Your task to perform on an android device: Search for good Italian restaurants Image 0: 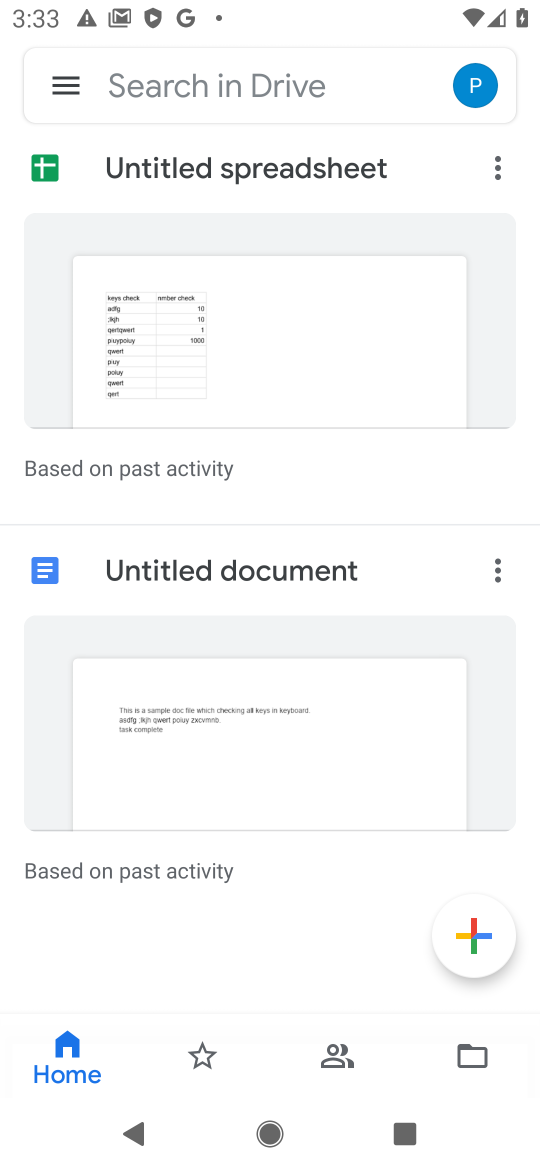
Step 0: press home button
Your task to perform on an android device: Search for good Italian restaurants Image 1: 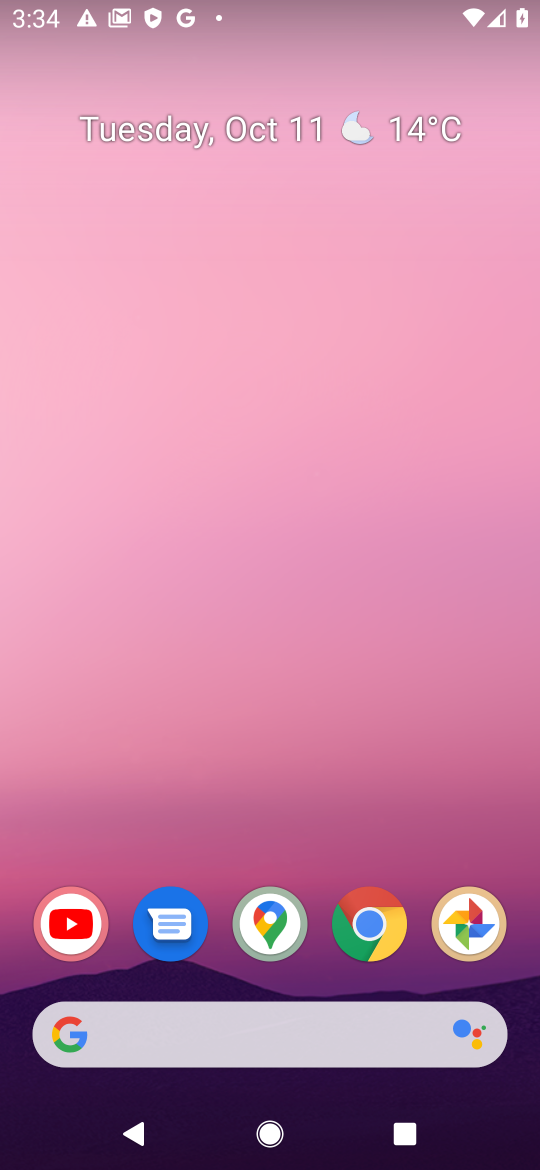
Step 1: click (396, 930)
Your task to perform on an android device: Search for good Italian restaurants Image 2: 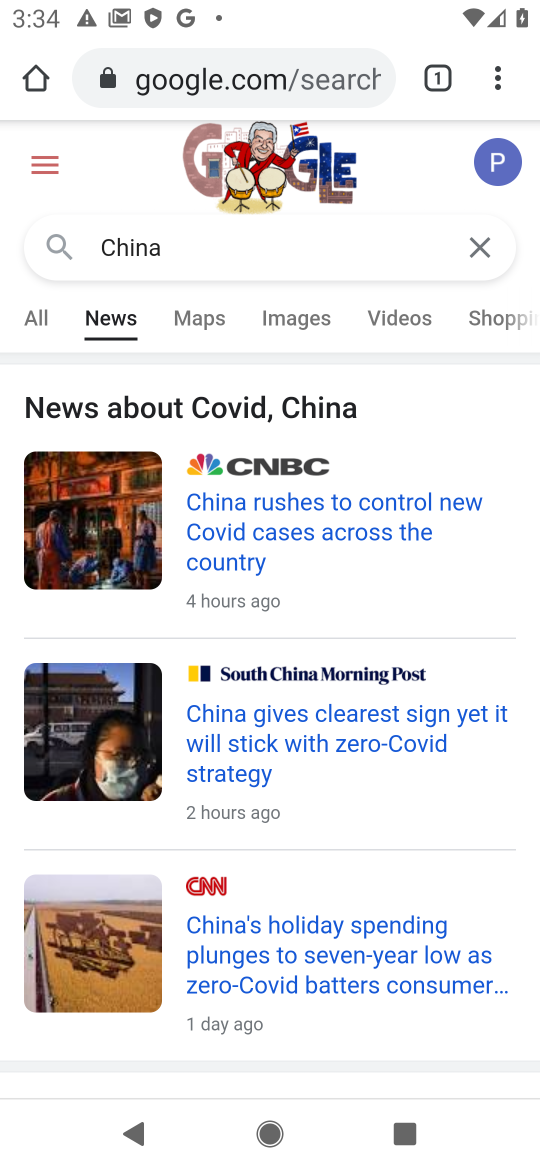
Step 2: click (276, 83)
Your task to perform on an android device: Search for good Italian restaurants Image 3: 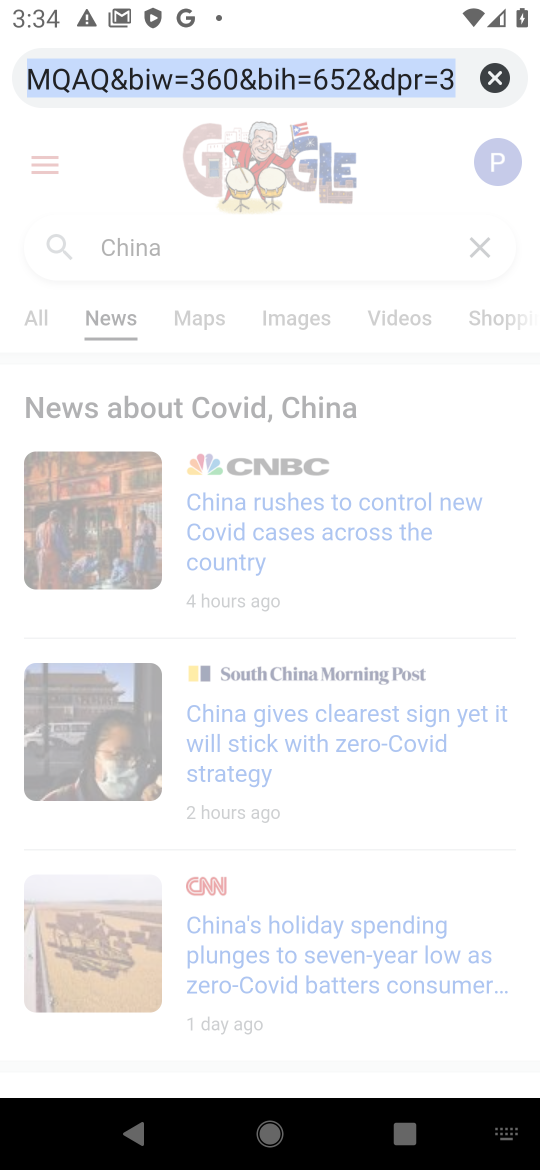
Step 3: type "good italian restaurants"
Your task to perform on an android device: Search for good Italian restaurants Image 4: 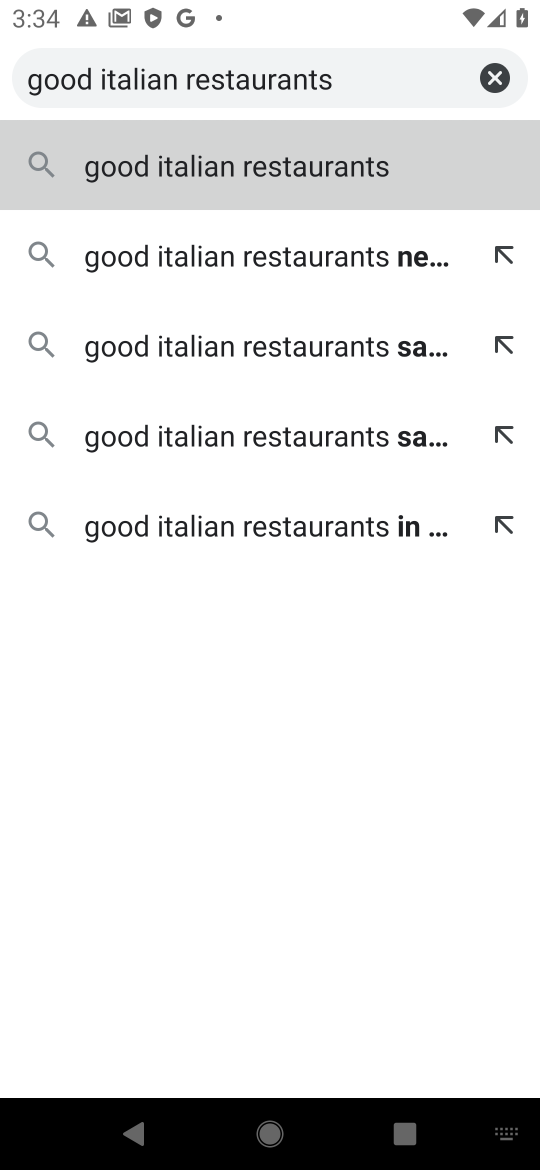
Step 4: click (336, 190)
Your task to perform on an android device: Search for good Italian restaurants Image 5: 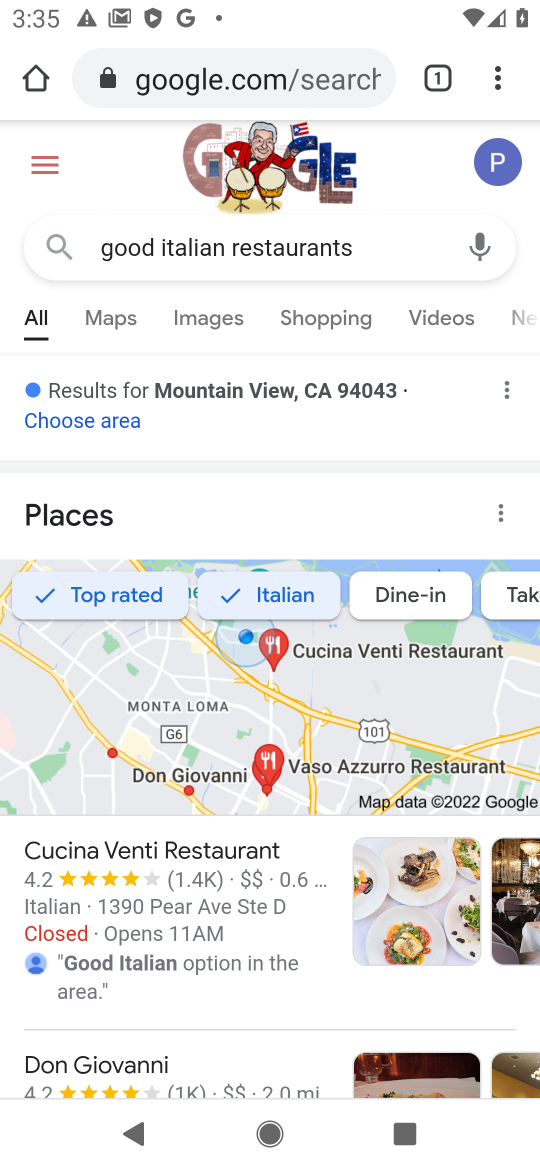
Step 5: task complete